Your task to perform on an android device: turn off translation in the chrome app Image 0: 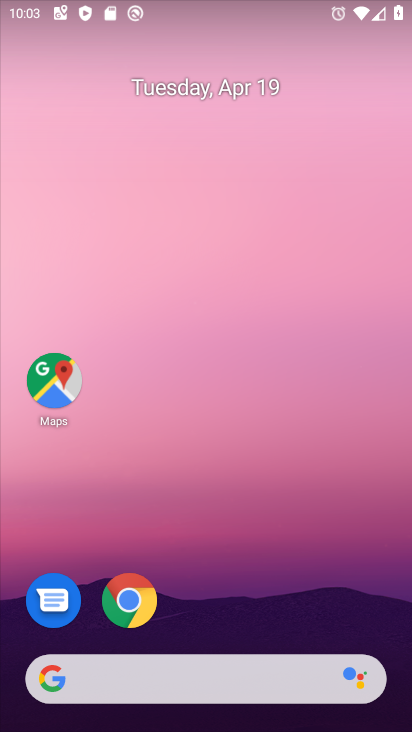
Step 0: drag from (214, 611) to (192, 164)
Your task to perform on an android device: turn off translation in the chrome app Image 1: 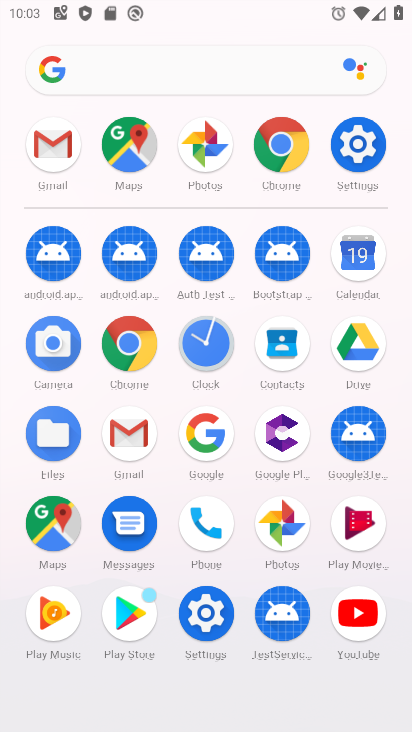
Step 1: click (124, 359)
Your task to perform on an android device: turn off translation in the chrome app Image 2: 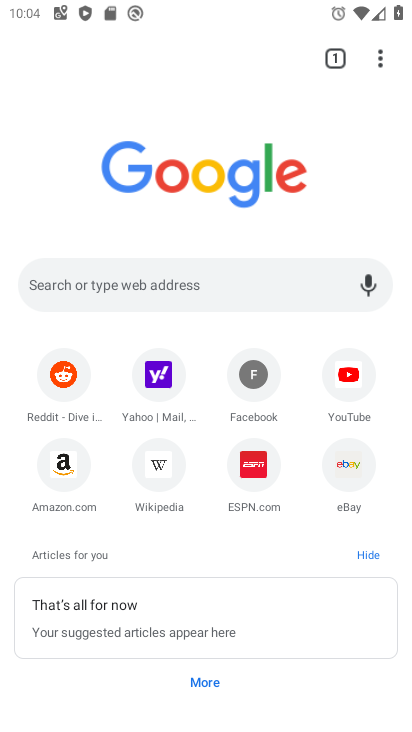
Step 2: click (377, 57)
Your task to perform on an android device: turn off translation in the chrome app Image 3: 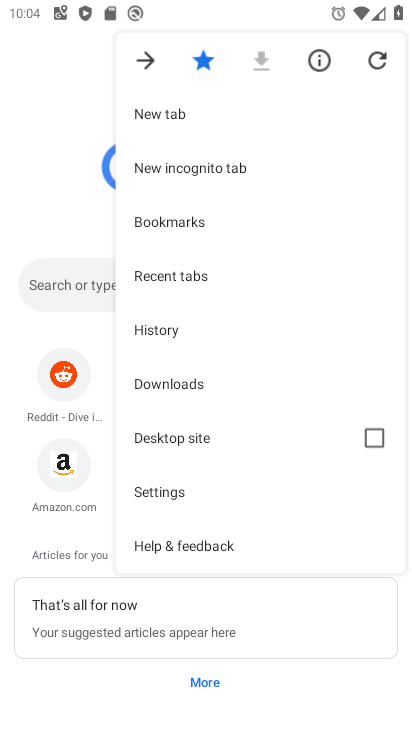
Step 3: click (188, 501)
Your task to perform on an android device: turn off translation in the chrome app Image 4: 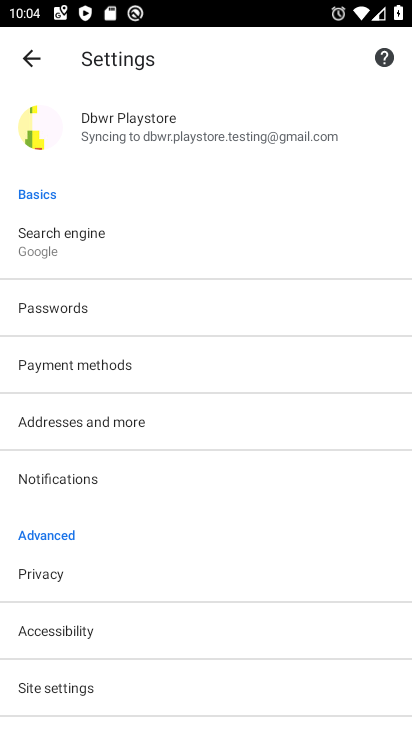
Step 4: drag from (127, 662) to (134, 416)
Your task to perform on an android device: turn off translation in the chrome app Image 5: 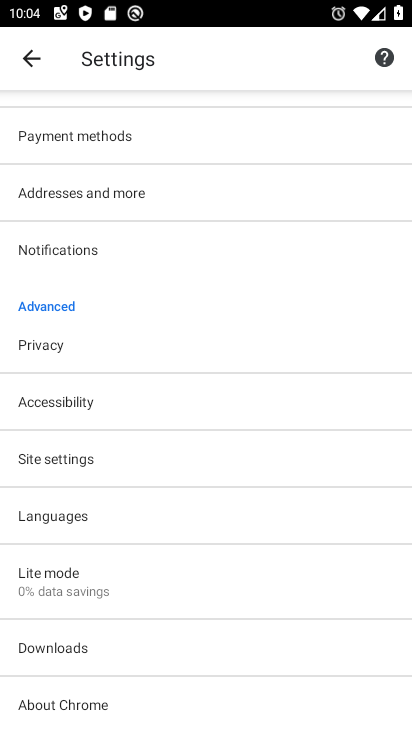
Step 5: click (127, 510)
Your task to perform on an android device: turn off translation in the chrome app Image 6: 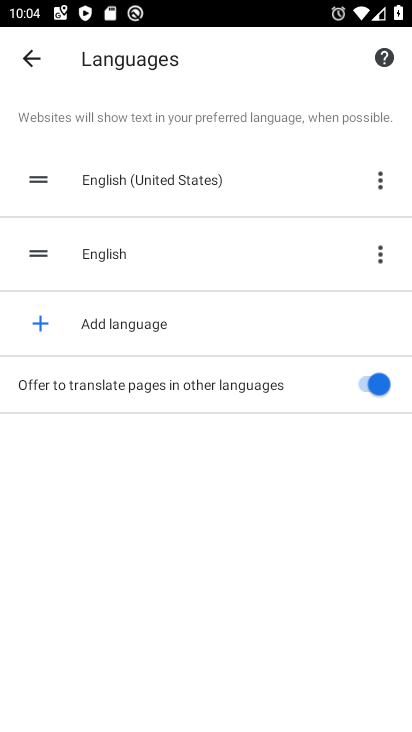
Step 6: click (338, 387)
Your task to perform on an android device: turn off translation in the chrome app Image 7: 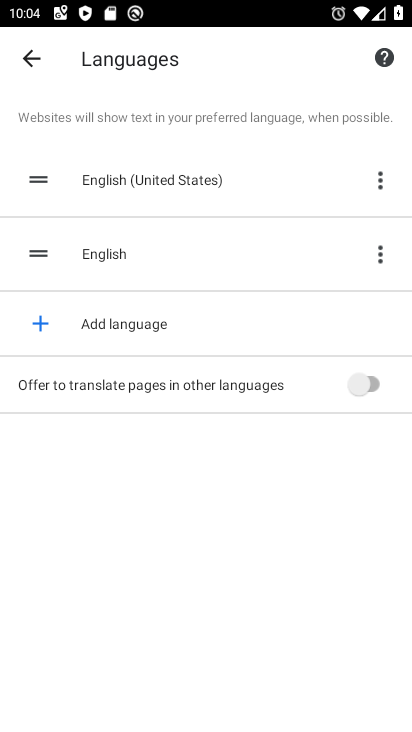
Step 7: task complete